Your task to perform on an android device: clear history in the chrome app Image 0: 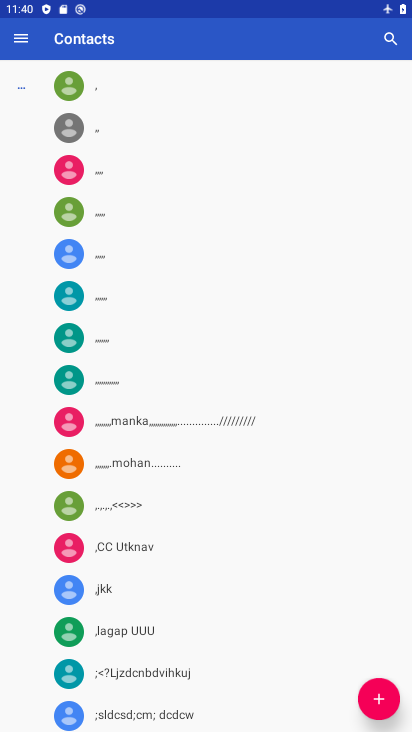
Step 0: press home button
Your task to perform on an android device: clear history in the chrome app Image 1: 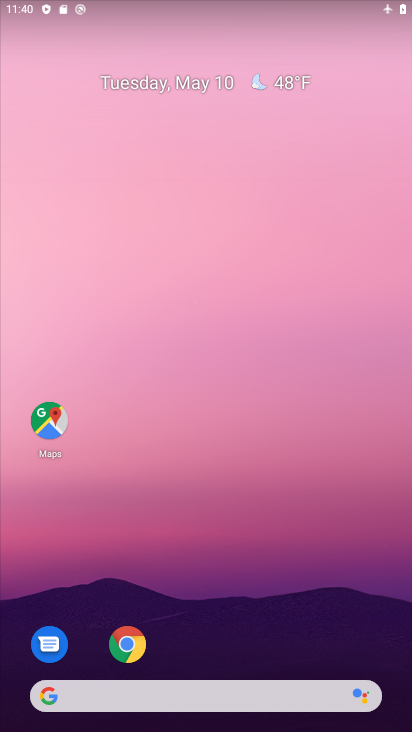
Step 1: click (127, 643)
Your task to perform on an android device: clear history in the chrome app Image 2: 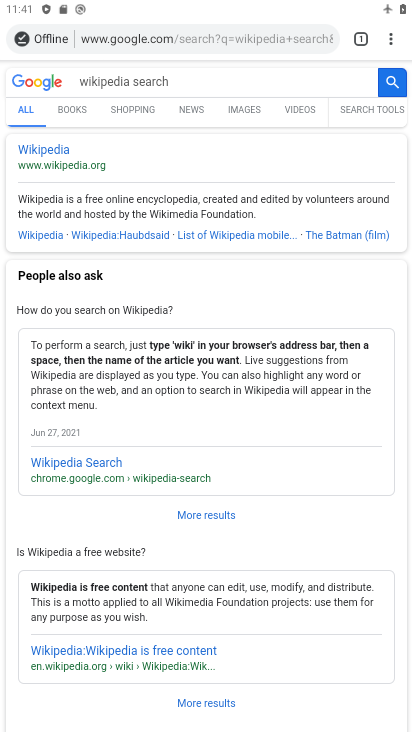
Step 2: click (384, 35)
Your task to perform on an android device: clear history in the chrome app Image 3: 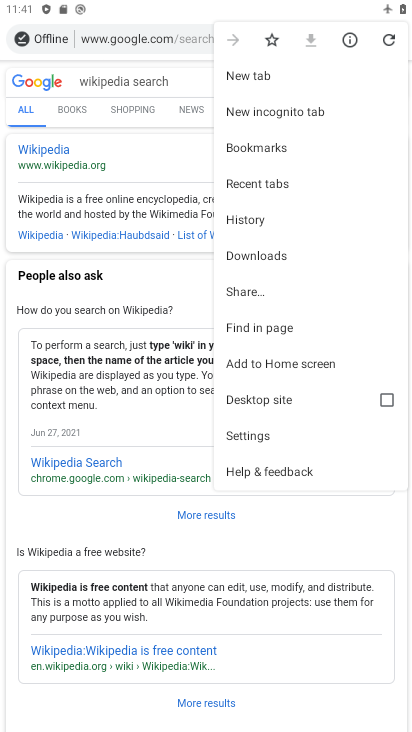
Step 3: click (248, 212)
Your task to perform on an android device: clear history in the chrome app Image 4: 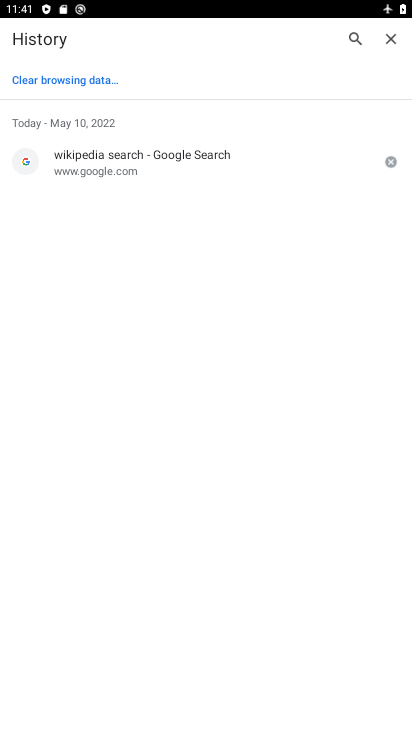
Step 4: click (90, 85)
Your task to perform on an android device: clear history in the chrome app Image 5: 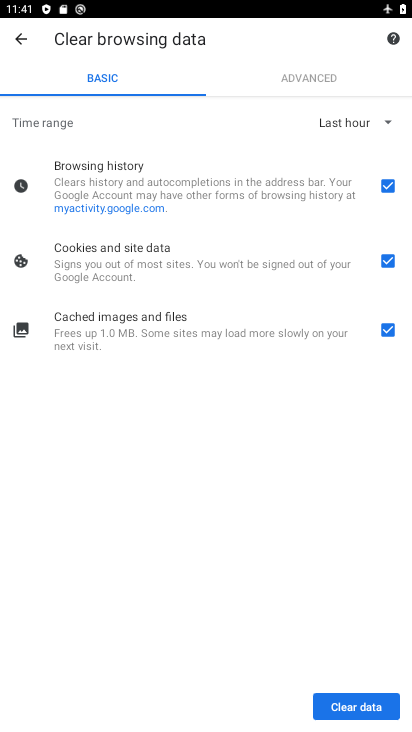
Step 5: click (325, 705)
Your task to perform on an android device: clear history in the chrome app Image 6: 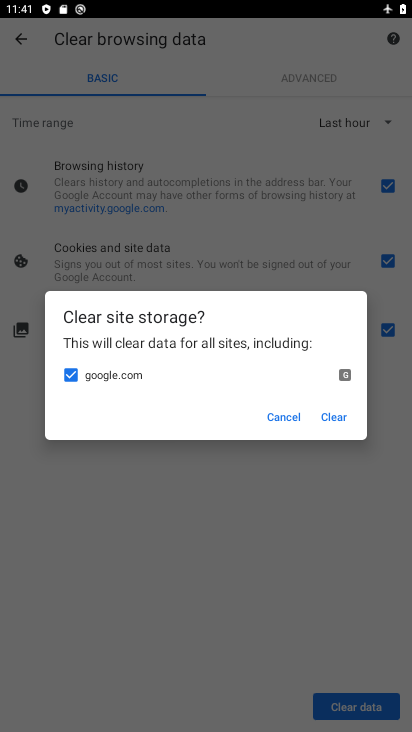
Step 6: click (288, 403)
Your task to perform on an android device: clear history in the chrome app Image 7: 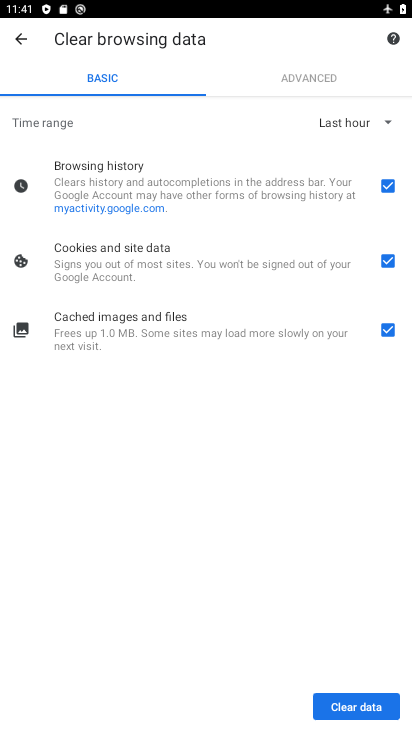
Step 7: click (394, 261)
Your task to perform on an android device: clear history in the chrome app Image 8: 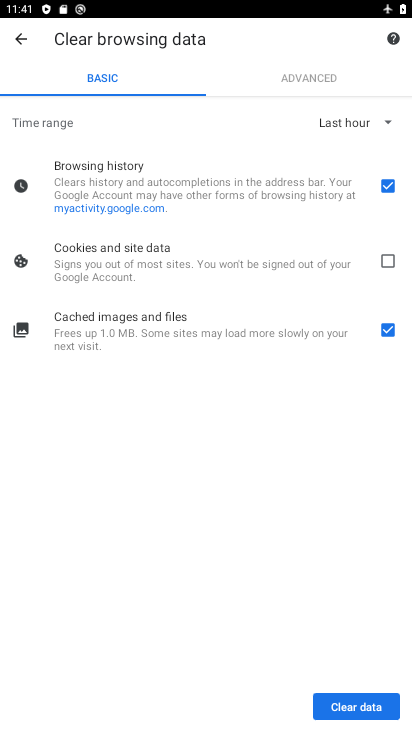
Step 8: click (384, 331)
Your task to perform on an android device: clear history in the chrome app Image 9: 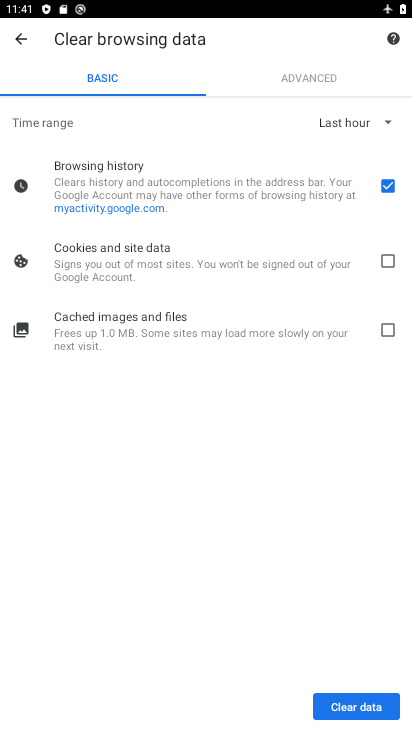
Step 9: click (363, 702)
Your task to perform on an android device: clear history in the chrome app Image 10: 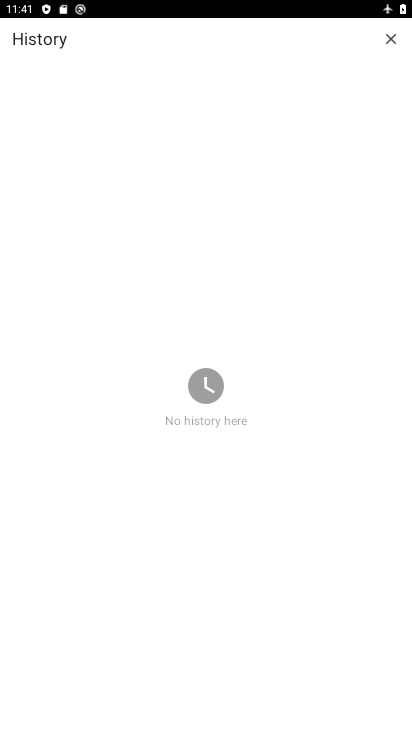
Step 10: task complete